Your task to perform on an android device: Check the news Image 0: 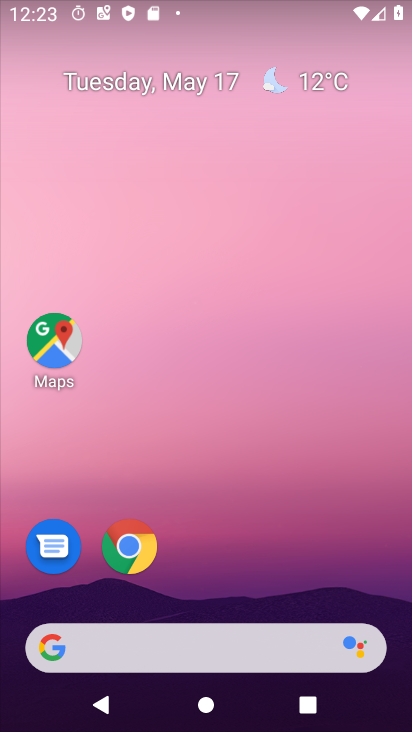
Step 0: press home button
Your task to perform on an android device: Check the news Image 1: 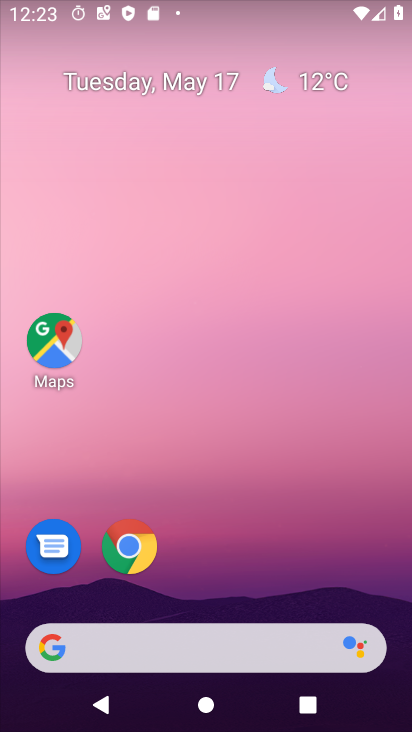
Step 1: click (53, 649)
Your task to perform on an android device: Check the news Image 2: 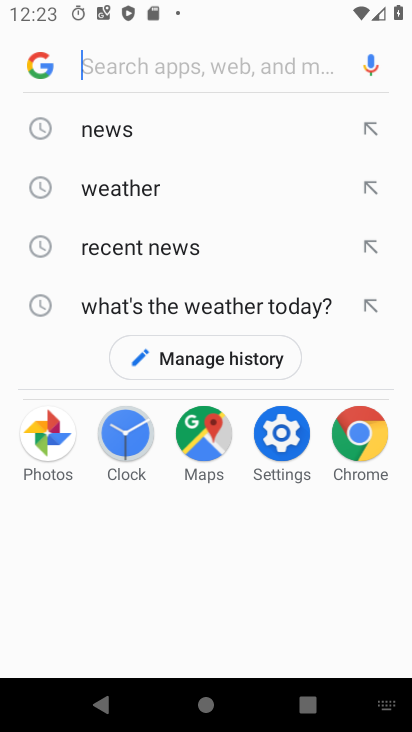
Step 2: click (104, 133)
Your task to perform on an android device: Check the news Image 3: 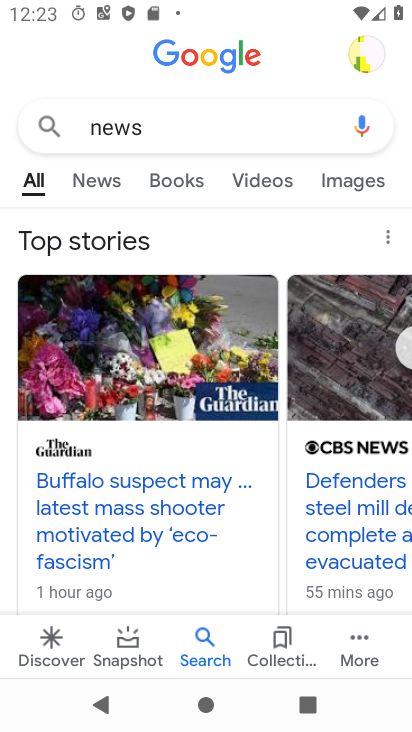
Step 3: click (98, 185)
Your task to perform on an android device: Check the news Image 4: 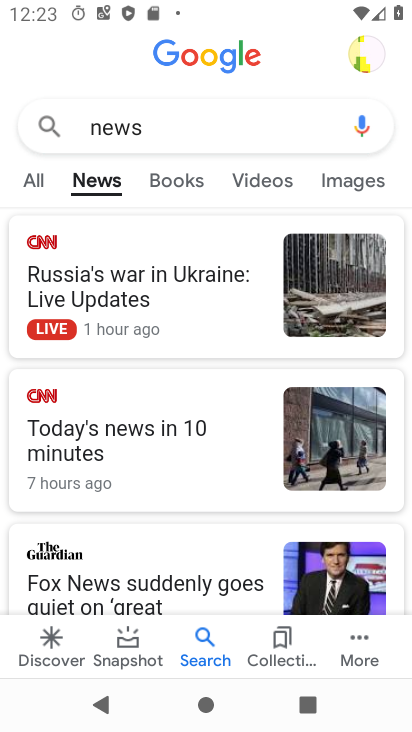
Step 4: task complete